Your task to perform on an android device: Go to internet settings Image 0: 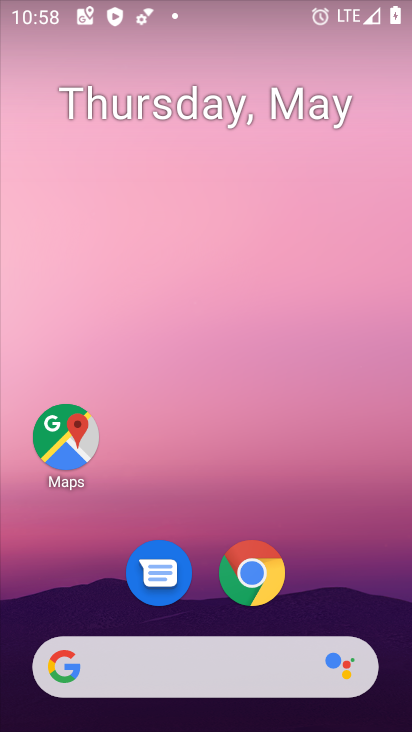
Step 0: drag from (210, 617) to (218, 219)
Your task to perform on an android device: Go to internet settings Image 1: 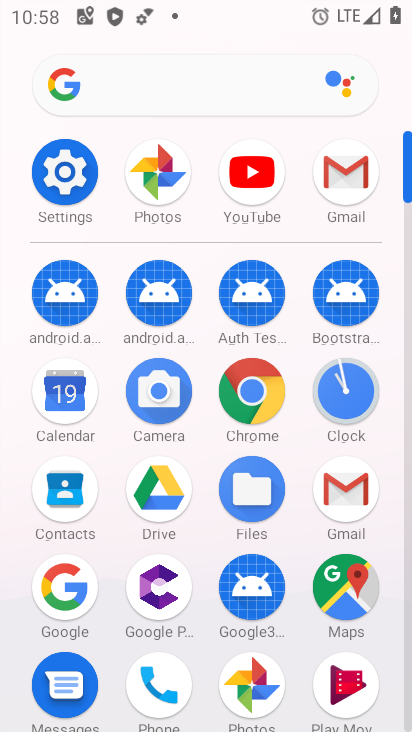
Step 1: click (96, 175)
Your task to perform on an android device: Go to internet settings Image 2: 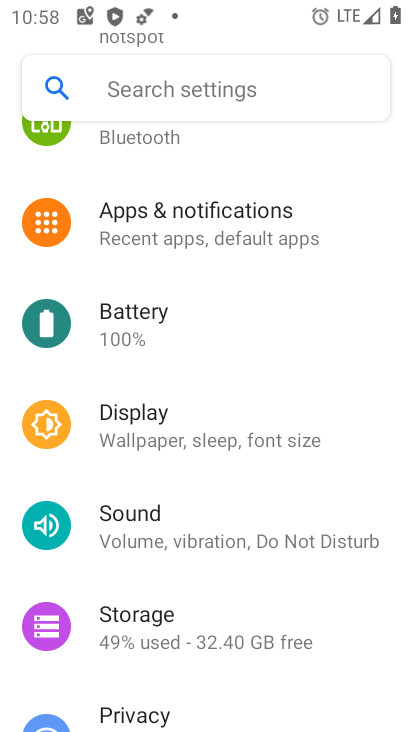
Step 2: drag from (193, 239) to (198, 535)
Your task to perform on an android device: Go to internet settings Image 3: 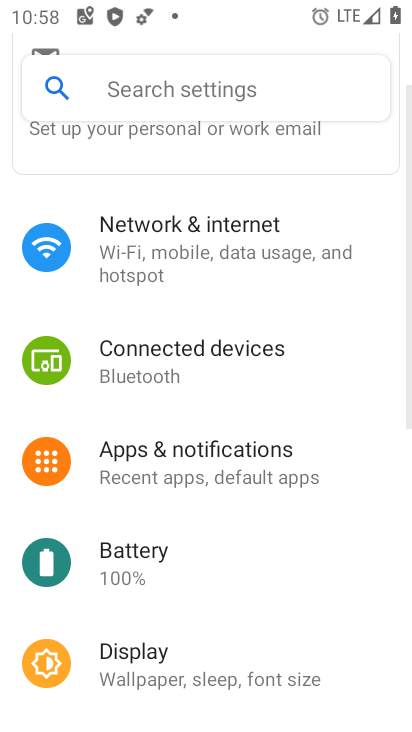
Step 3: drag from (226, 240) to (226, 363)
Your task to perform on an android device: Go to internet settings Image 4: 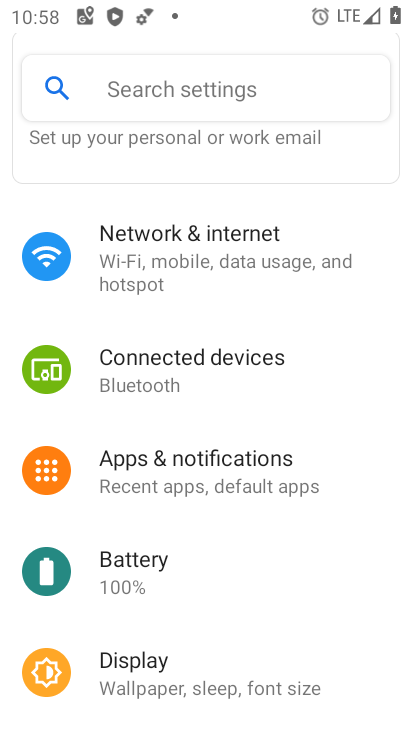
Step 4: click (188, 275)
Your task to perform on an android device: Go to internet settings Image 5: 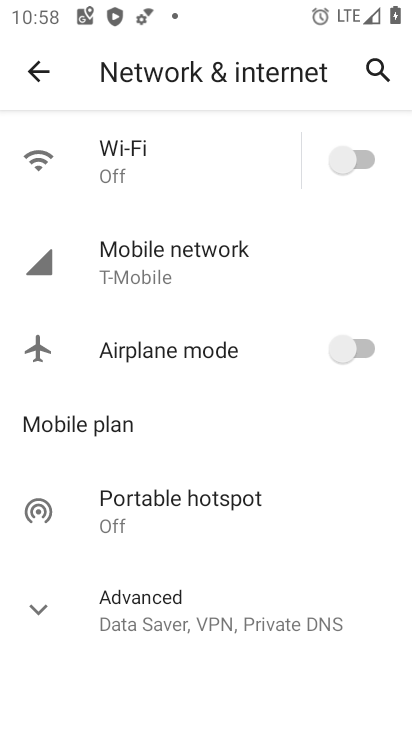
Step 5: click (191, 262)
Your task to perform on an android device: Go to internet settings Image 6: 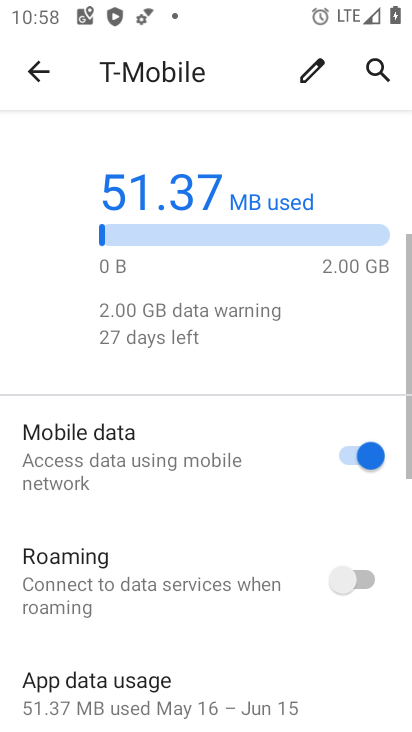
Step 6: task complete